Your task to perform on an android device: Go to Amazon Image 0: 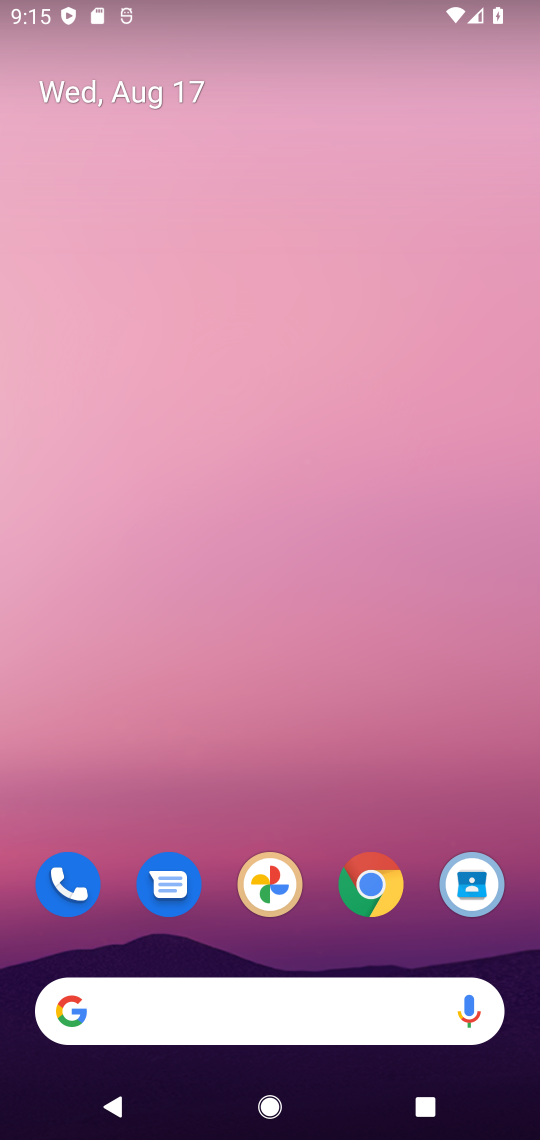
Step 0: click (378, 878)
Your task to perform on an android device: Go to Amazon Image 1: 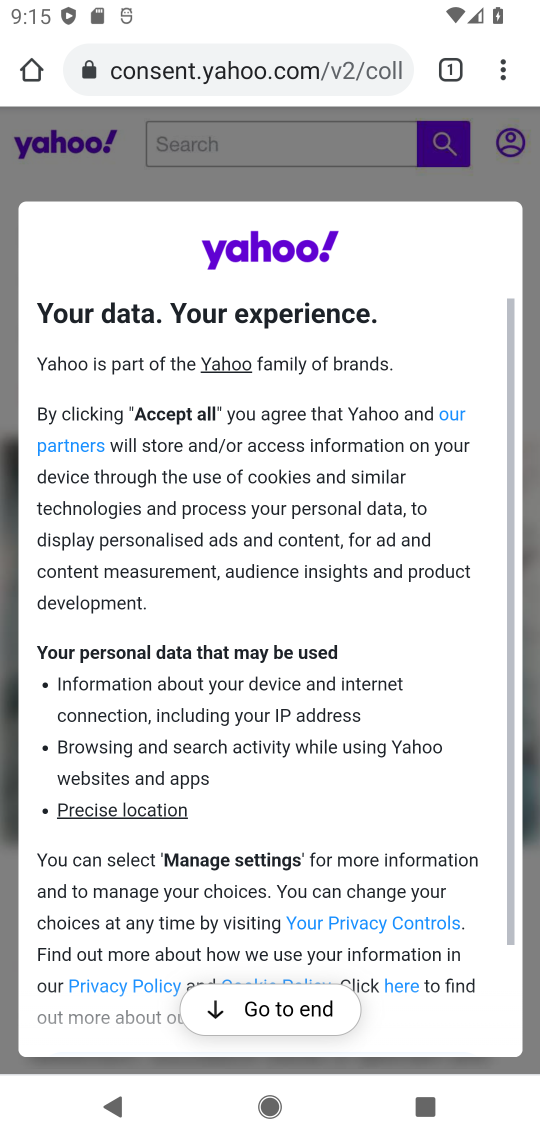
Step 1: click (431, 64)
Your task to perform on an android device: Go to Amazon Image 2: 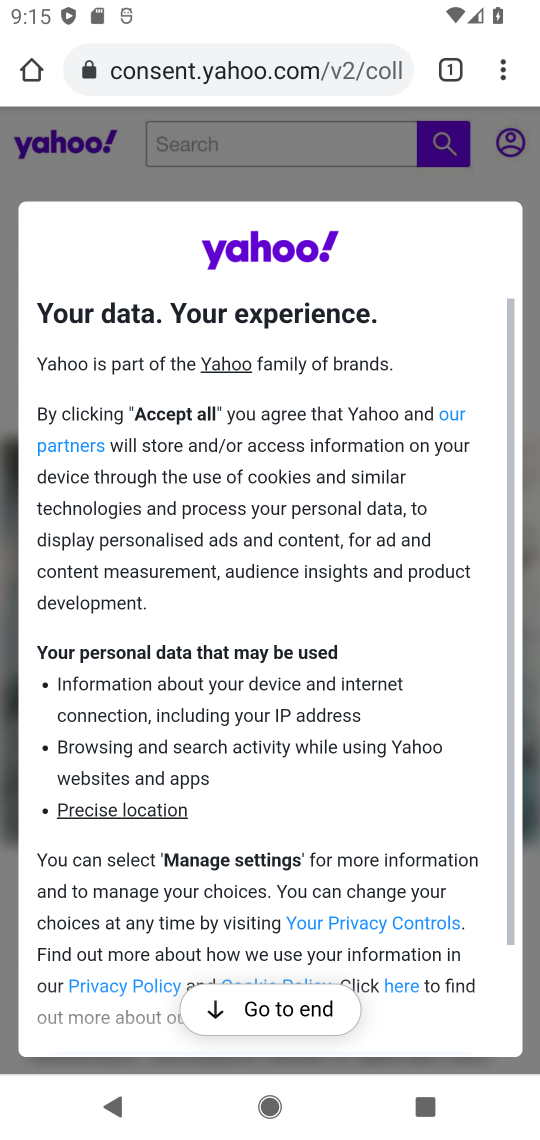
Step 2: click (453, 64)
Your task to perform on an android device: Go to Amazon Image 3: 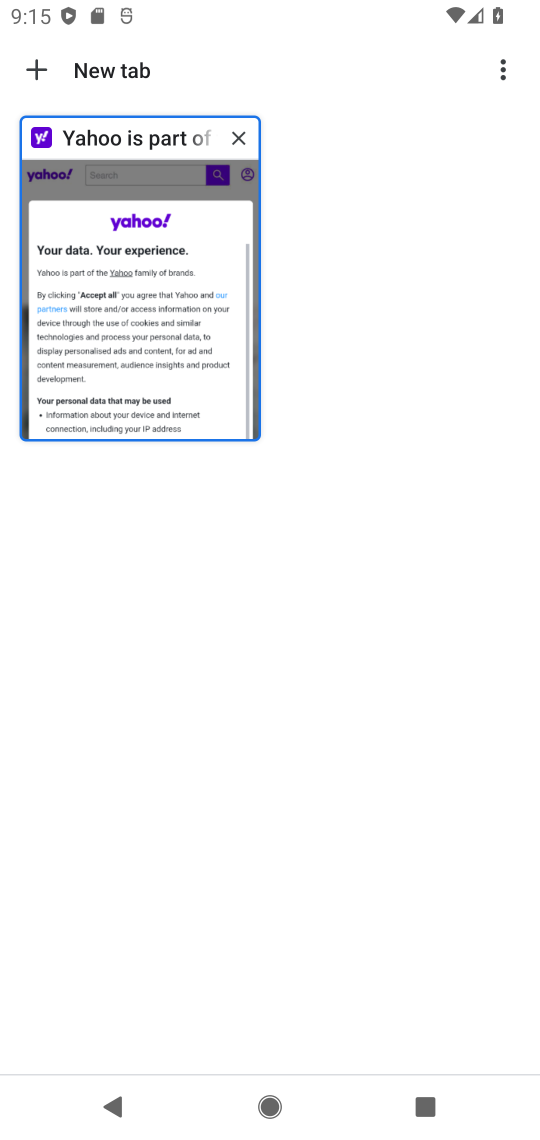
Step 3: click (38, 64)
Your task to perform on an android device: Go to Amazon Image 4: 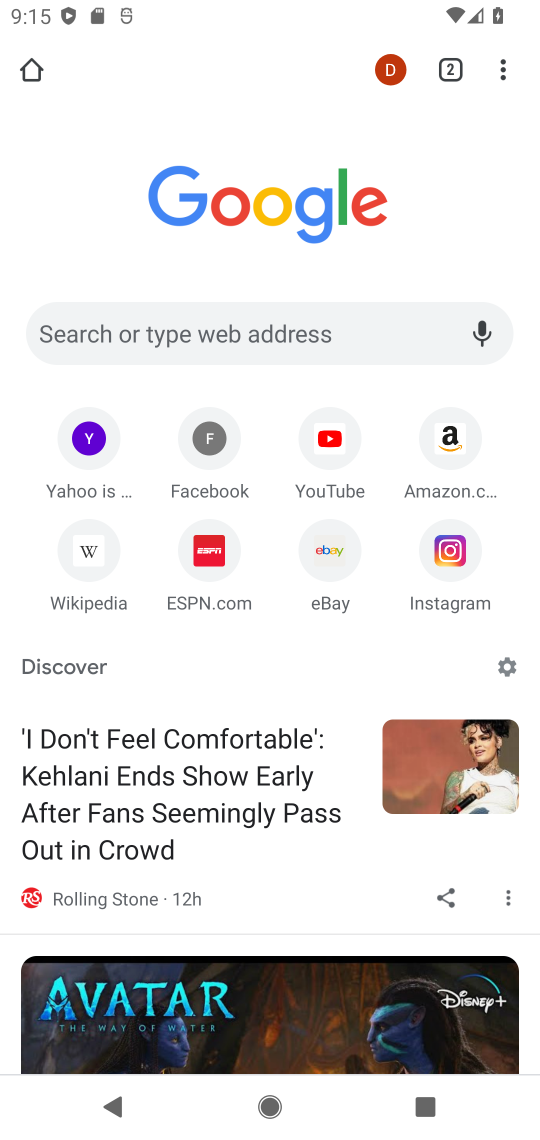
Step 4: click (443, 446)
Your task to perform on an android device: Go to Amazon Image 5: 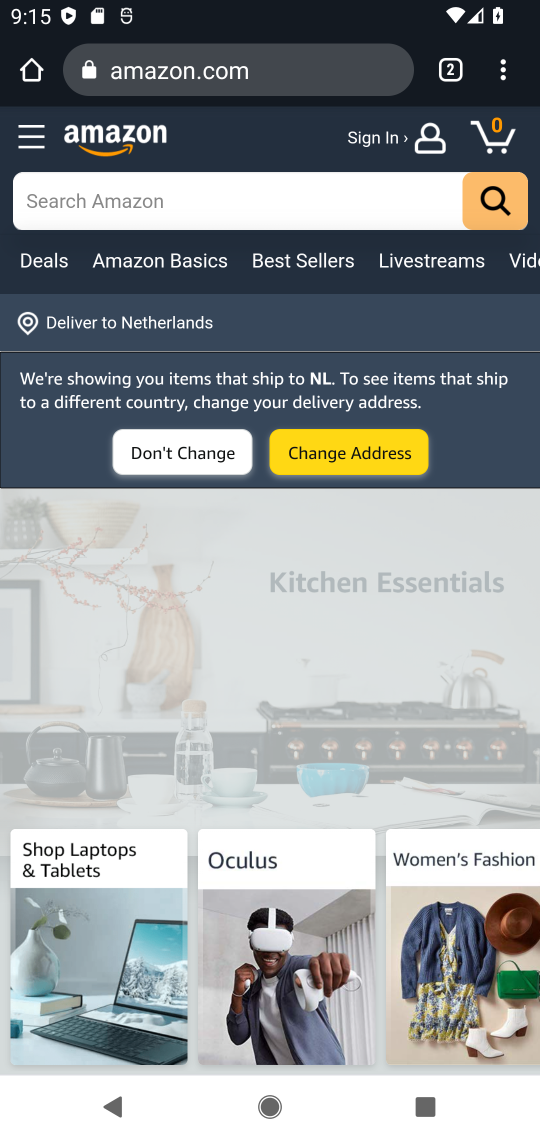
Step 5: task complete